Your task to perform on an android device: change the clock display to analog Image 0: 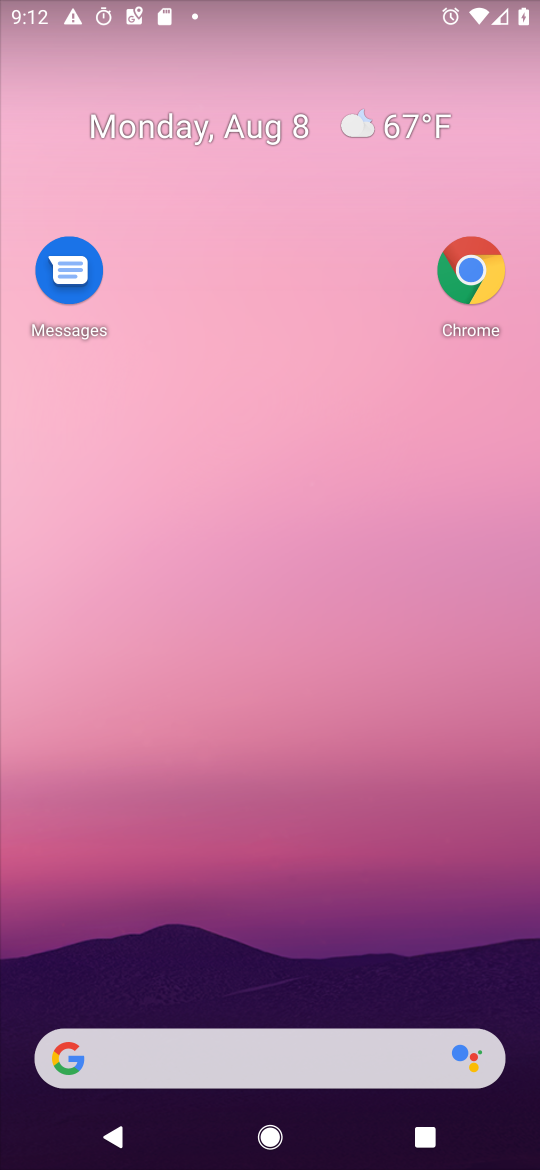
Step 0: click (460, 288)
Your task to perform on an android device: change the clock display to analog Image 1: 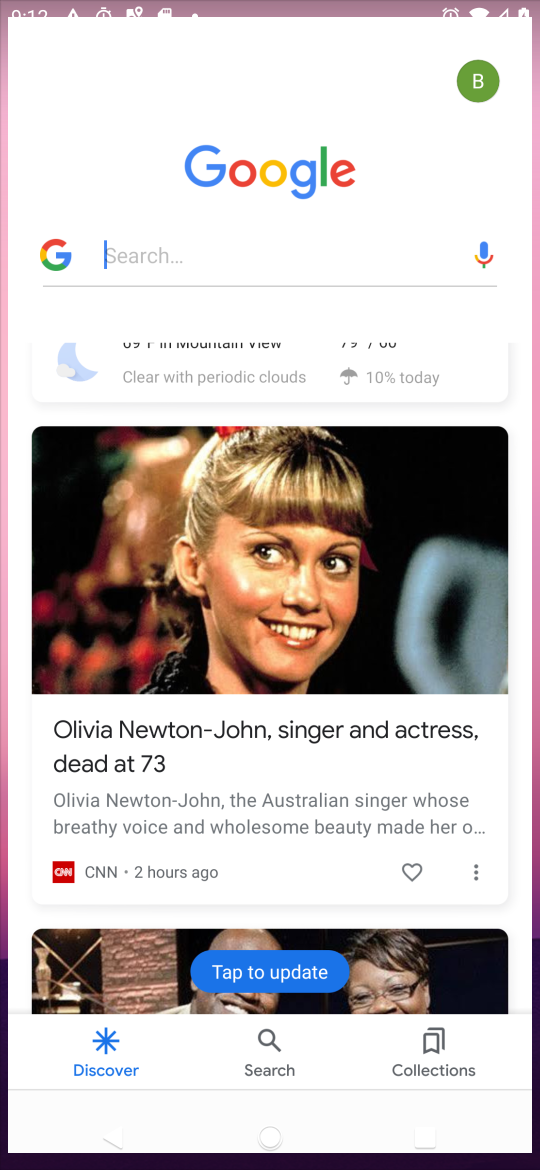
Step 1: press home button
Your task to perform on an android device: change the clock display to analog Image 2: 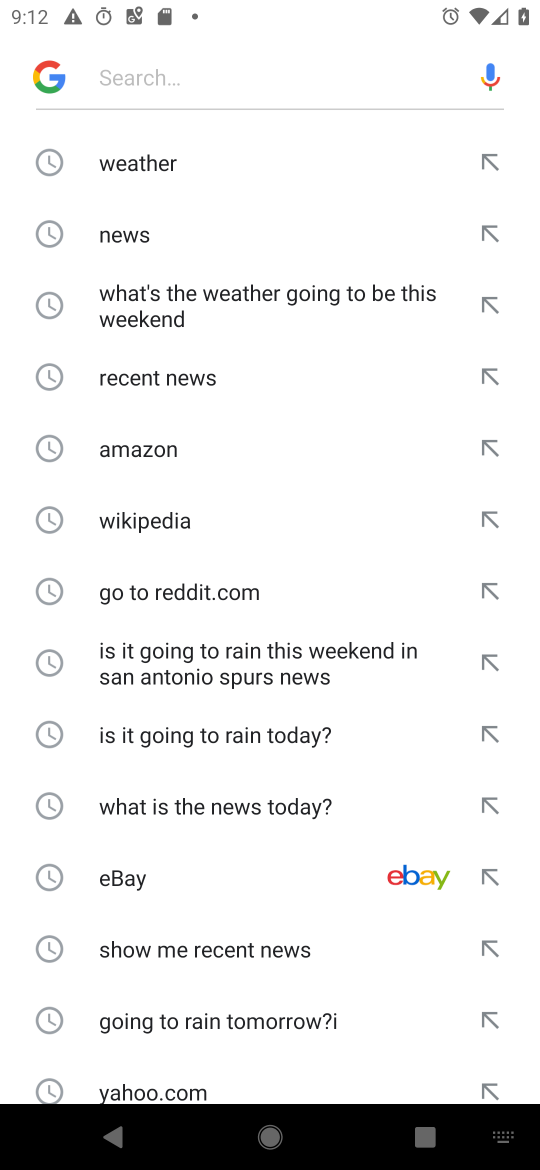
Step 2: drag from (213, 835) to (267, 659)
Your task to perform on an android device: change the clock display to analog Image 3: 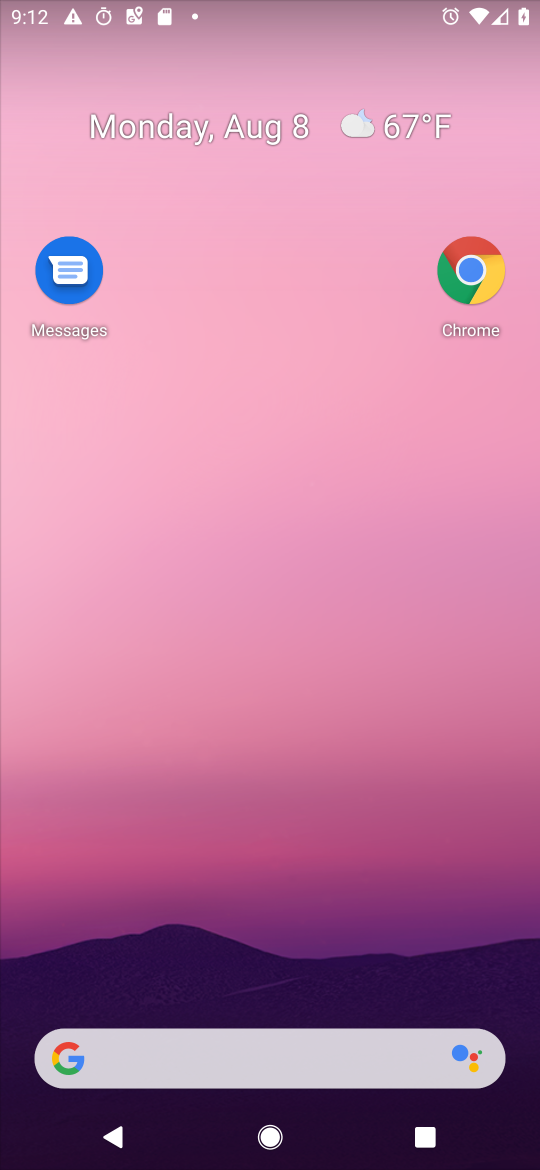
Step 3: drag from (274, 925) to (298, 276)
Your task to perform on an android device: change the clock display to analog Image 4: 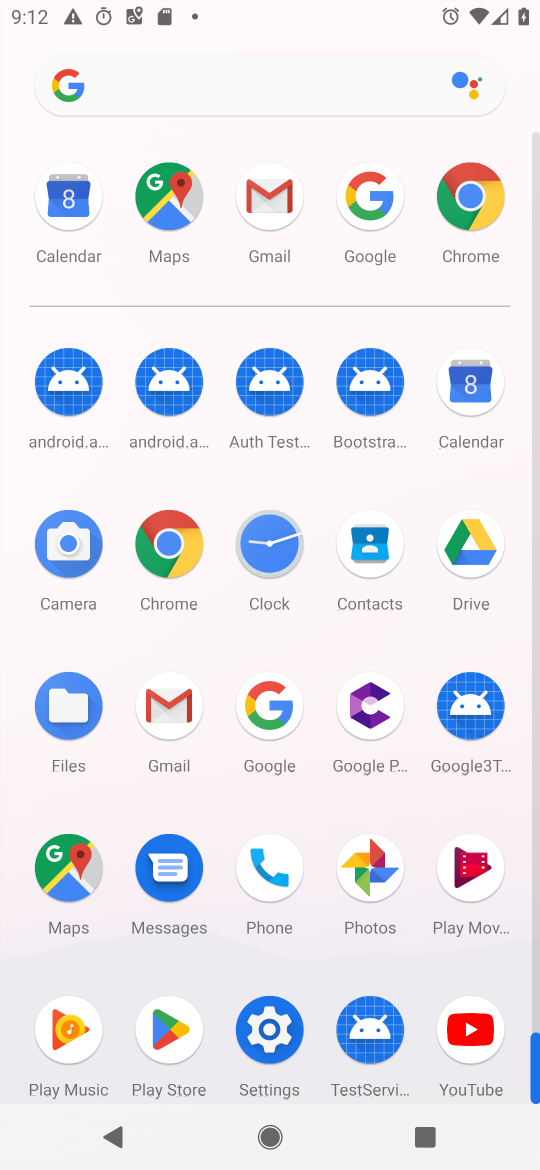
Step 4: click (259, 1015)
Your task to perform on an android device: change the clock display to analog Image 5: 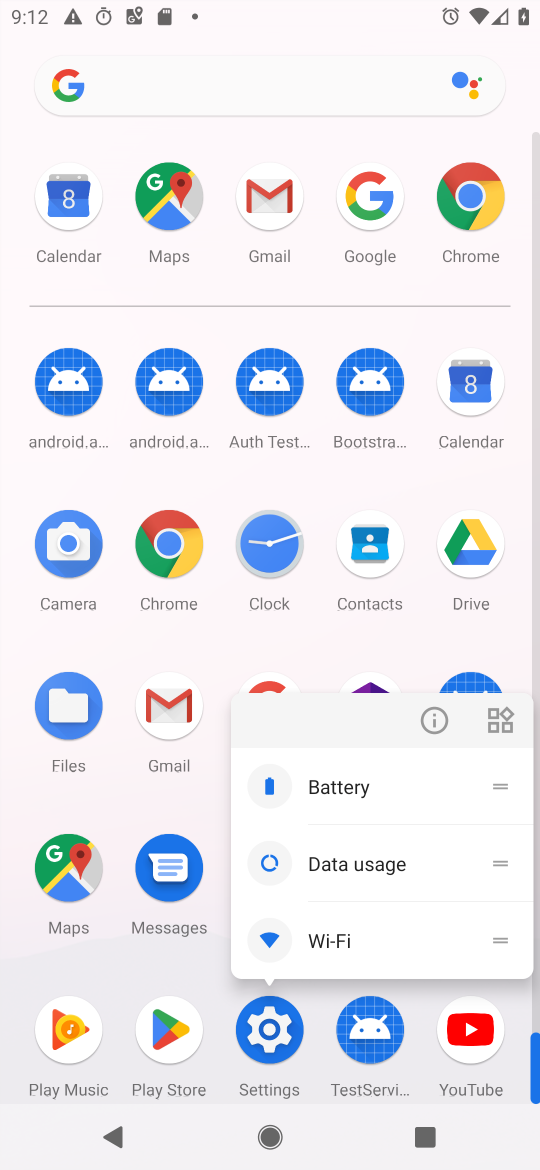
Step 5: click (430, 709)
Your task to perform on an android device: change the clock display to analog Image 6: 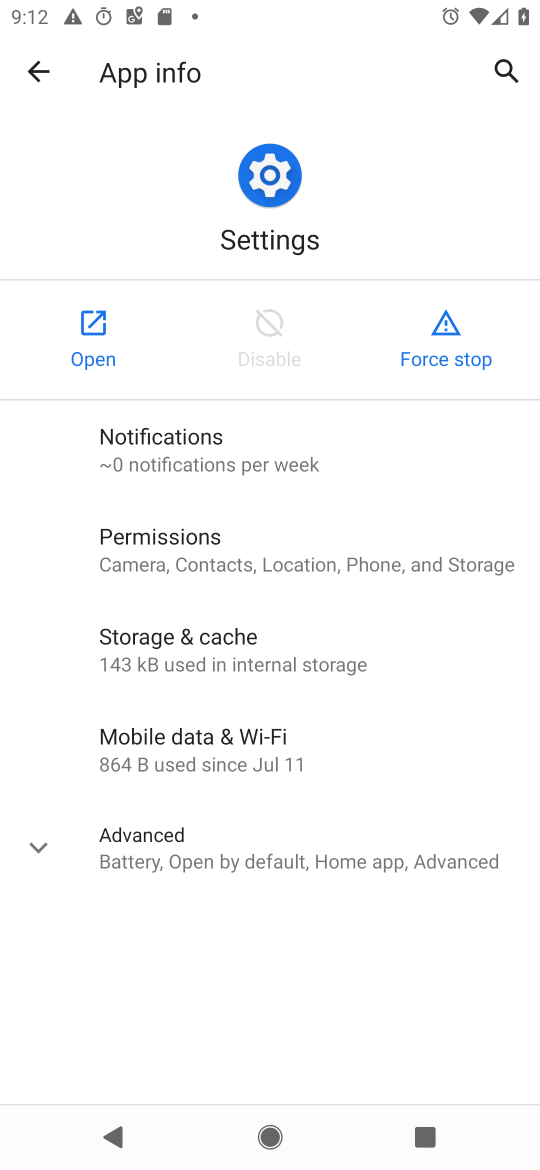
Step 6: click (78, 334)
Your task to perform on an android device: change the clock display to analog Image 7: 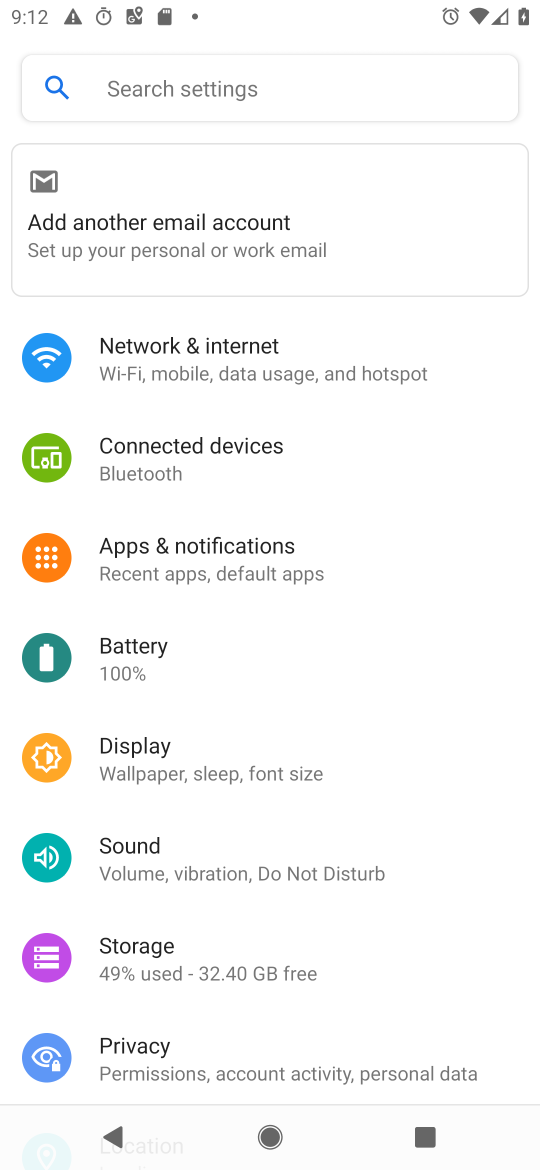
Step 7: task complete